Your task to perform on an android device: toggle sleep mode Image 0: 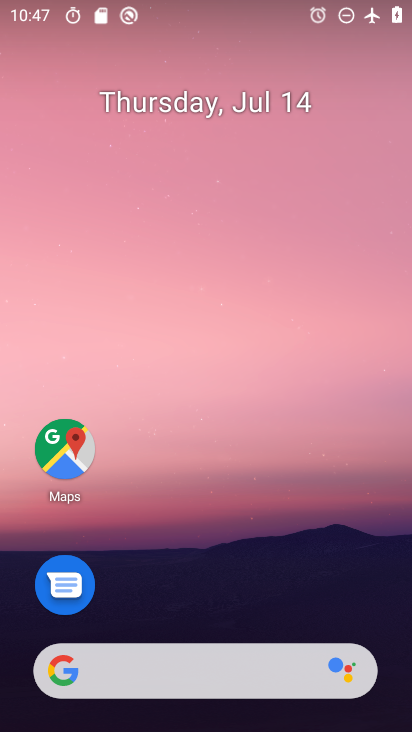
Step 0: drag from (217, 632) to (96, 47)
Your task to perform on an android device: toggle sleep mode Image 1: 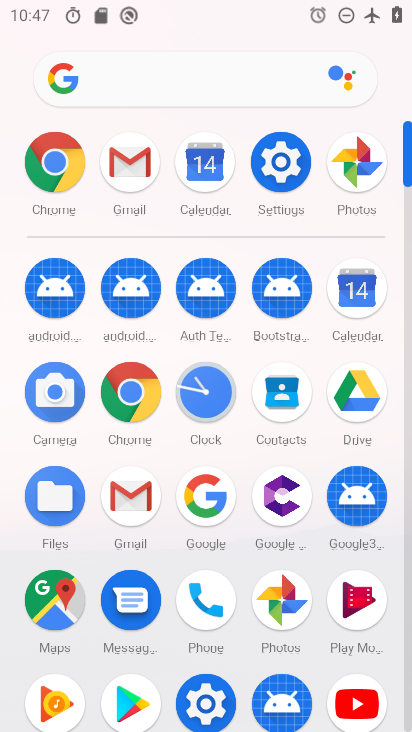
Step 1: click (271, 162)
Your task to perform on an android device: toggle sleep mode Image 2: 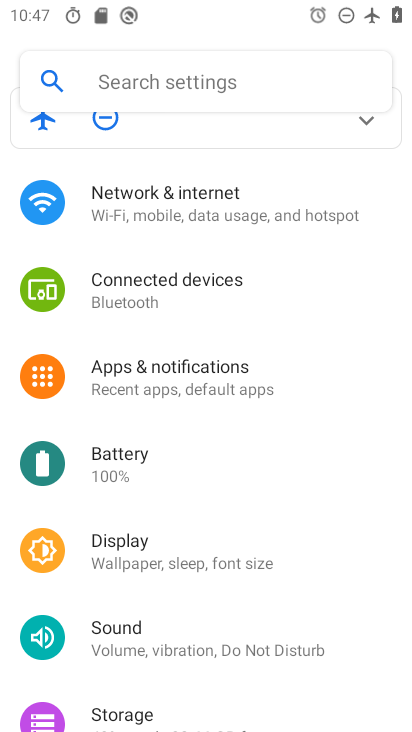
Step 2: click (111, 565)
Your task to perform on an android device: toggle sleep mode Image 3: 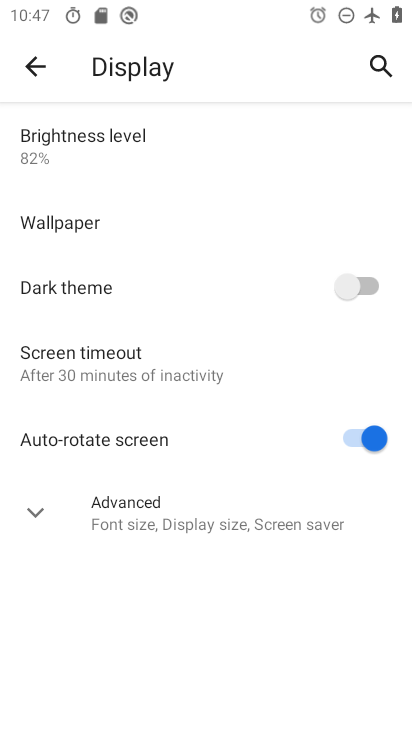
Step 3: task complete